Your task to perform on an android device: manage bookmarks in the chrome app Image 0: 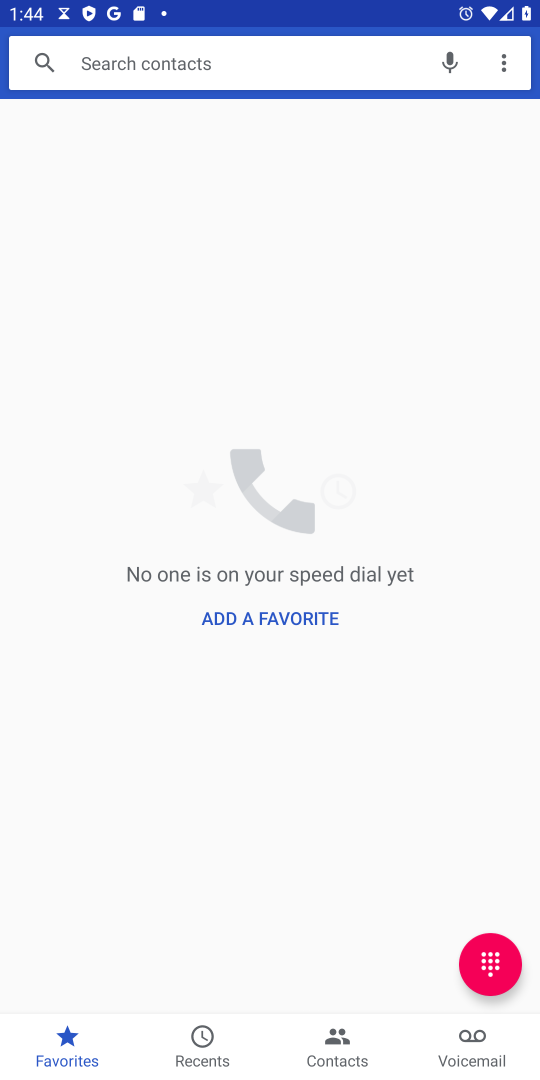
Step 0: press home button
Your task to perform on an android device: manage bookmarks in the chrome app Image 1: 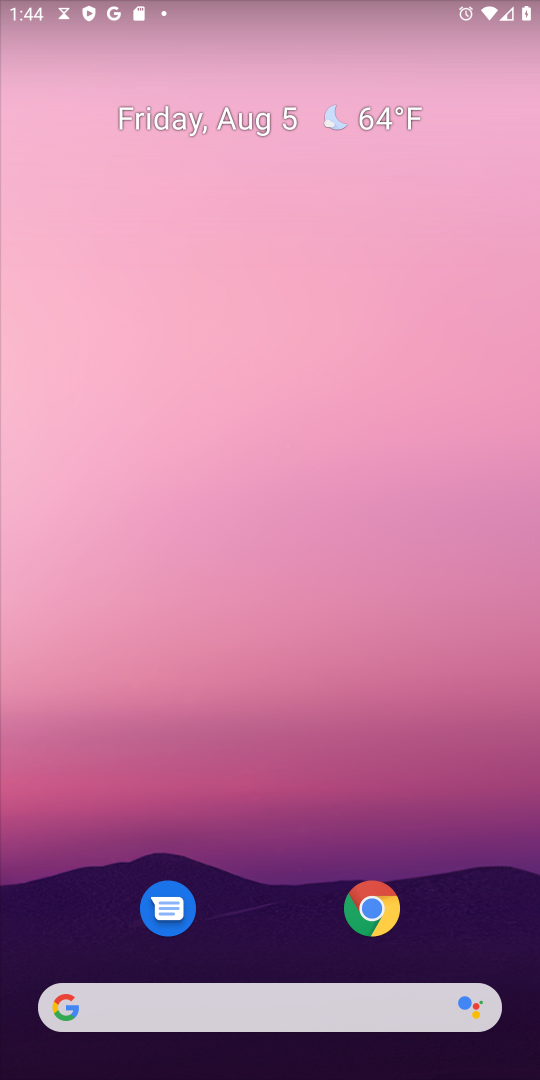
Step 1: drag from (237, 949) to (276, 190)
Your task to perform on an android device: manage bookmarks in the chrome app Image 2: 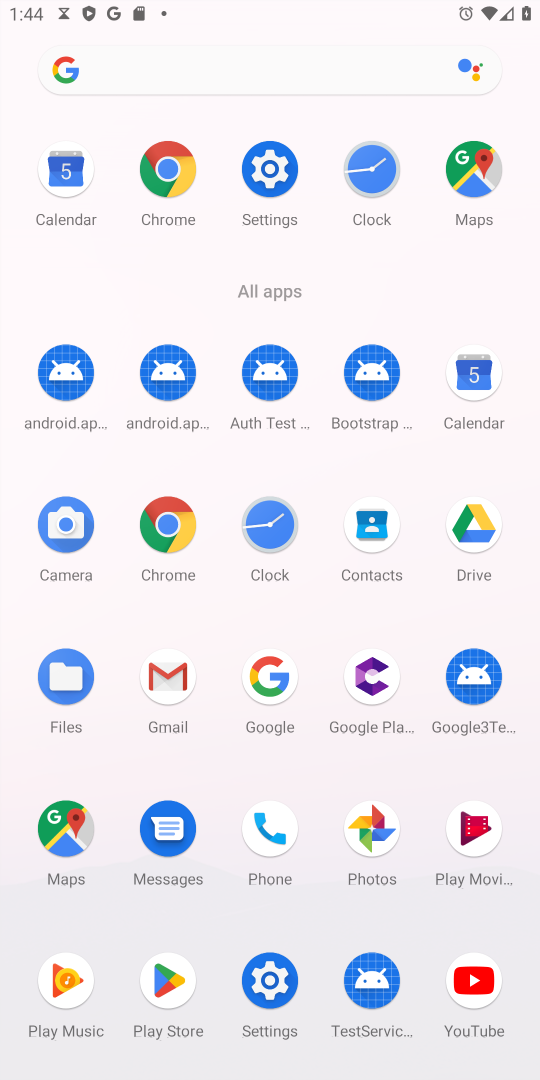
Step 2: click (166, 546)
Your task to perform on an android device: manage bookmarks in the chrome app Image 3: 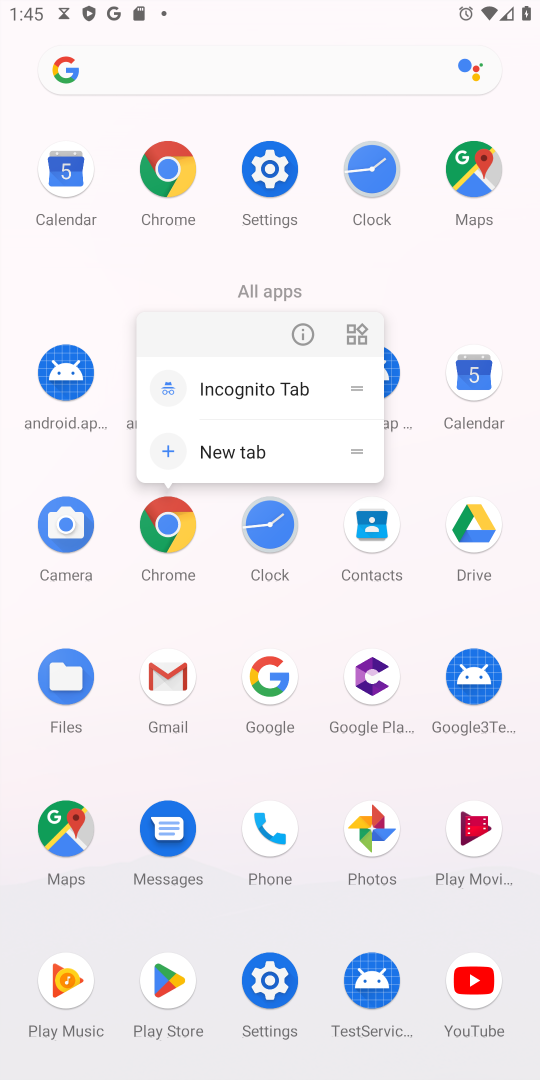
Step 3: click (185, 568)
Your task to perform on an android device: manage bookmarks in the chrome app Image 4: 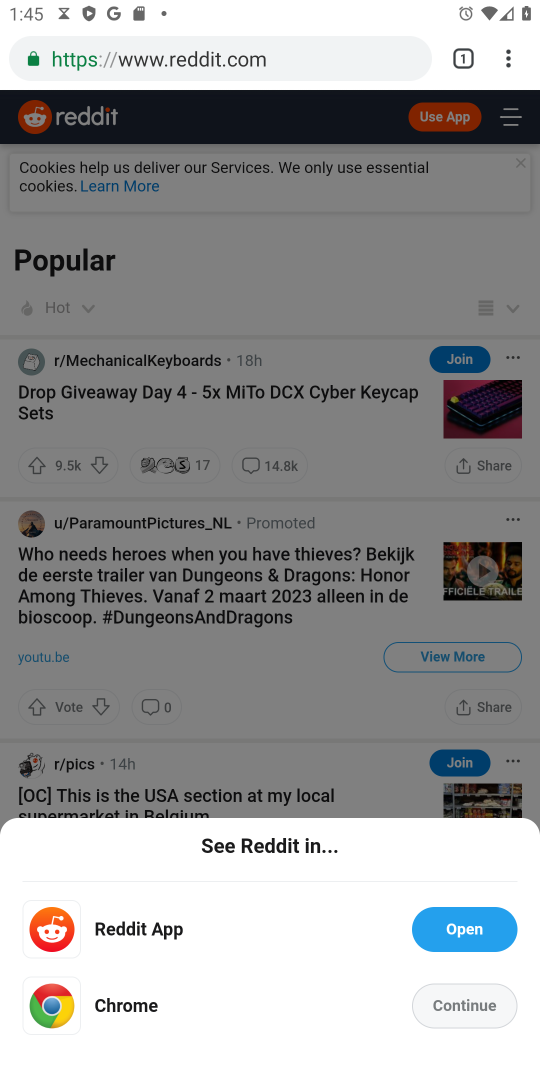
Step 4: task complete